Your task to perform on an android device: Open the map Image 0: 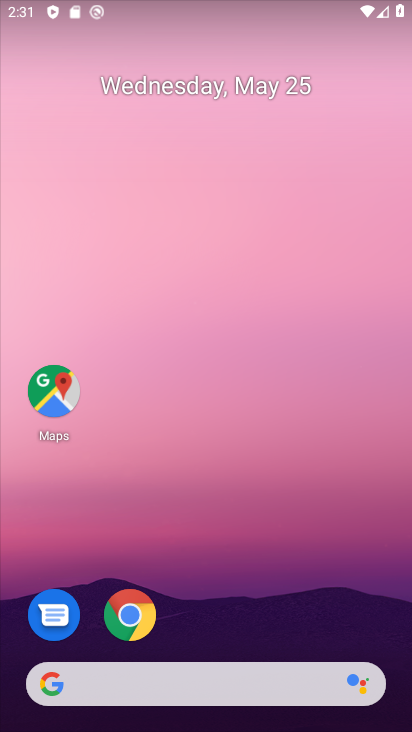
Step 0: click (64, 398)
Your task to perform on an android device: Open the map Image 1: 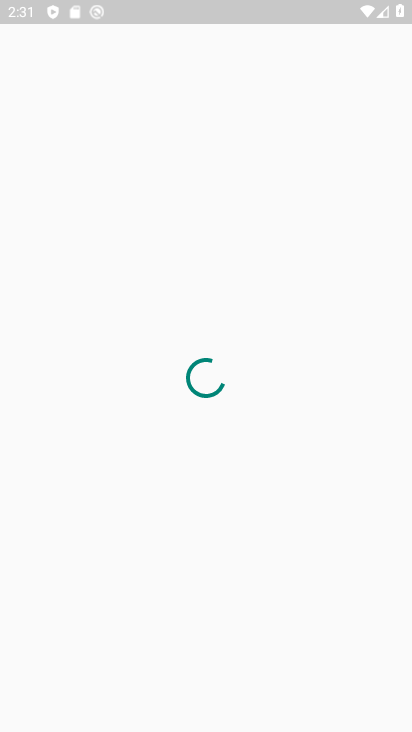
Step 1: click (263, 416)
Your task to perform on an android device: Open the map Image 2: 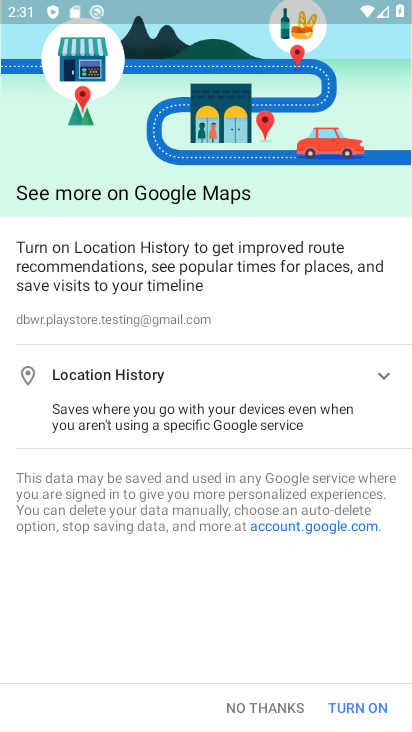
Step 2: click (296, 704)
Your task to perform on an android device: Open the map Image 3: 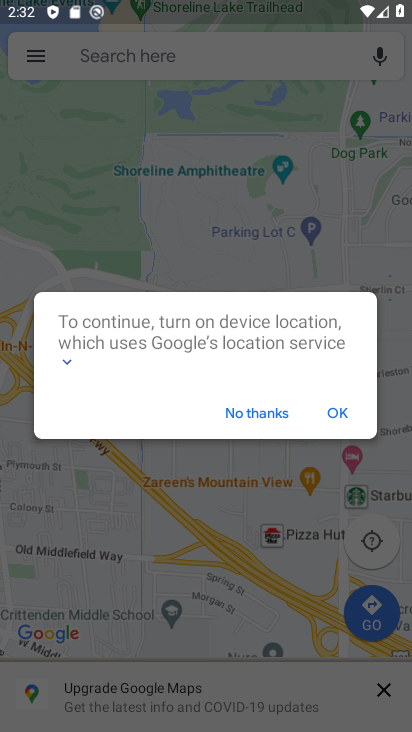
Step 3: click (252, 418)
Your task to perform on an android device: Open the map Image 4: 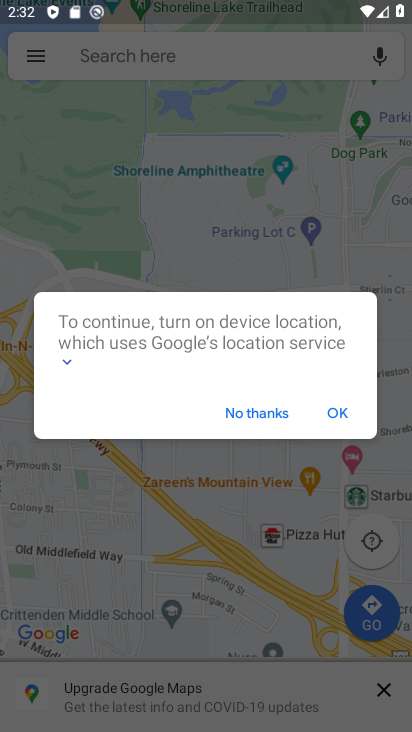
Step 4: click (259, 416)
Your task to perform on an android device: Open the map Image 5: 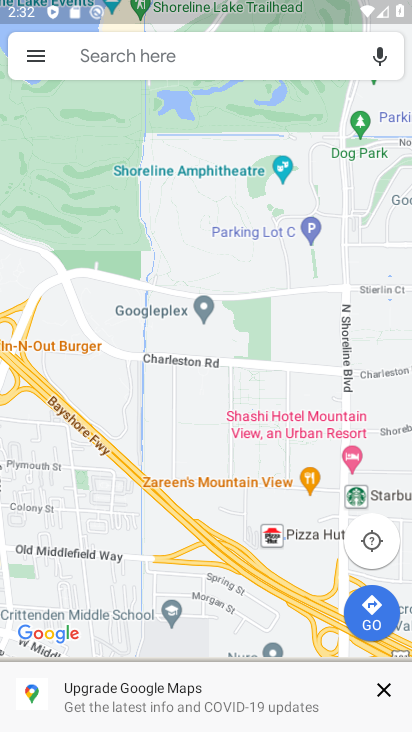
Step 5: task complete